Your task to perform on an android device: open app "Adobe Acrobat Reader: Edit PDF" (install if not already installed) Image 0: 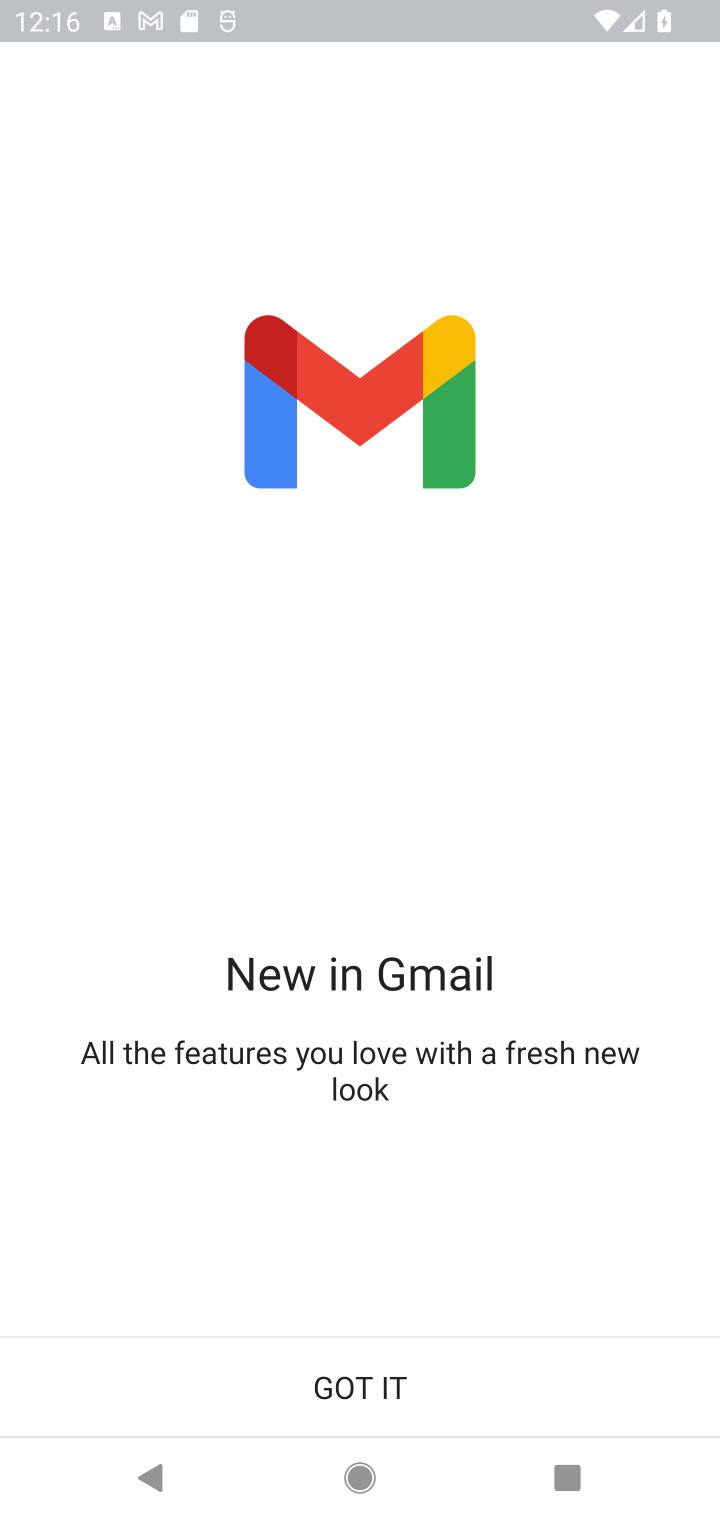
Step 0: press home button
Your task to perform on an android device: open app "Adobe Acrobat Reader: Edit PDF" (install if not already installed) Image 1: 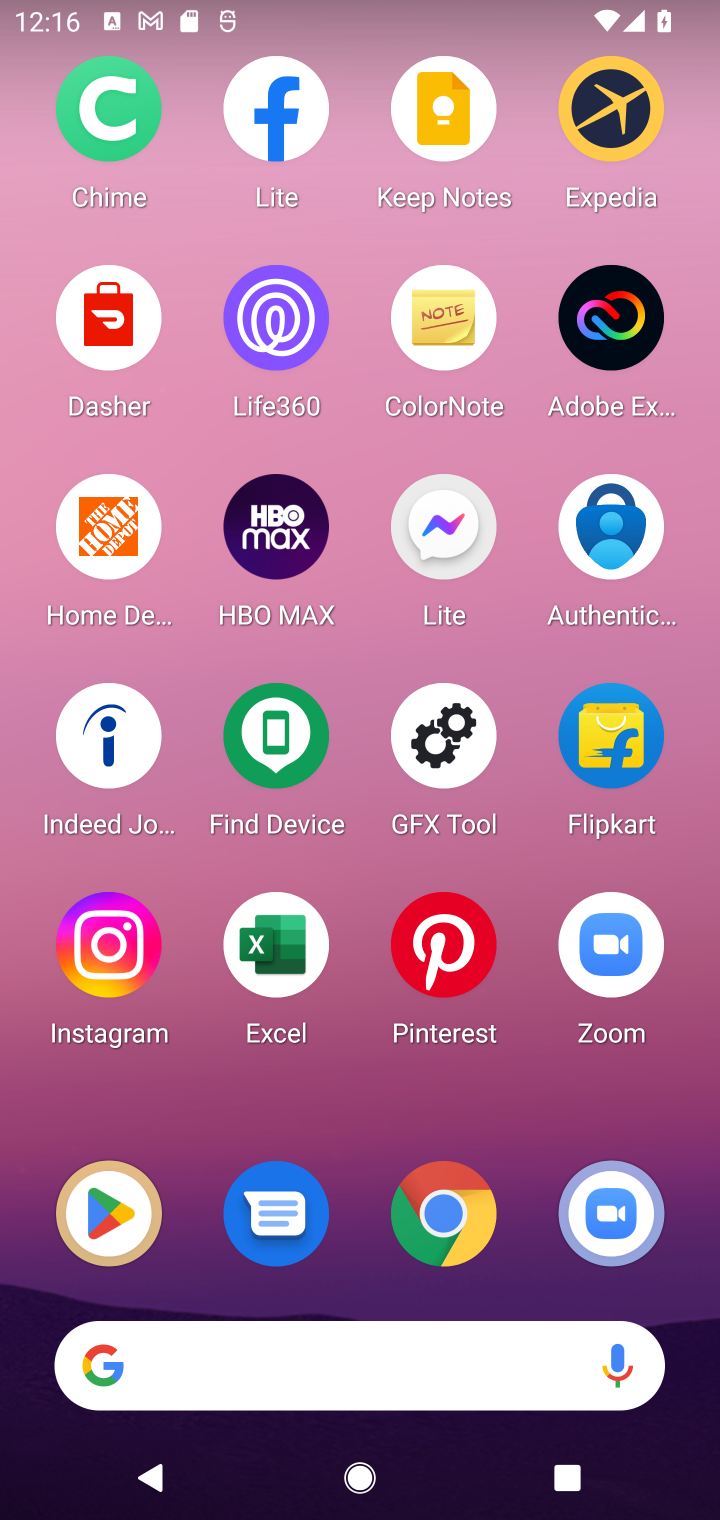
Step 1: click (123, 1205)
Your task to perform on an android device: open app "Adobe Acrobat Reader: Edit PDF" (install if not already installed) Image 2: 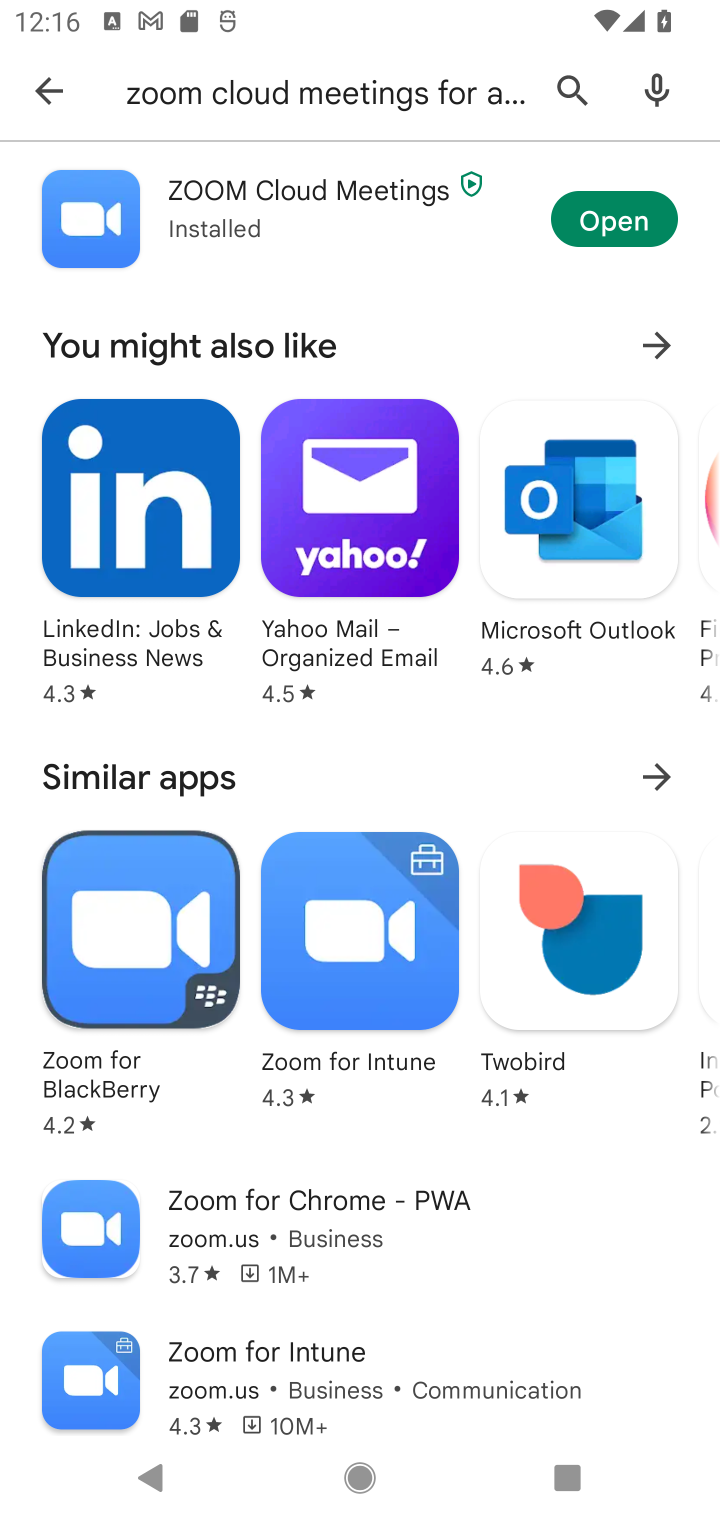
Step 2: click (43, 85)
Your task to perform on an android device: open app "Adobe Acrobat Reader: Edit PDF" (install if not already installed) Image 3: 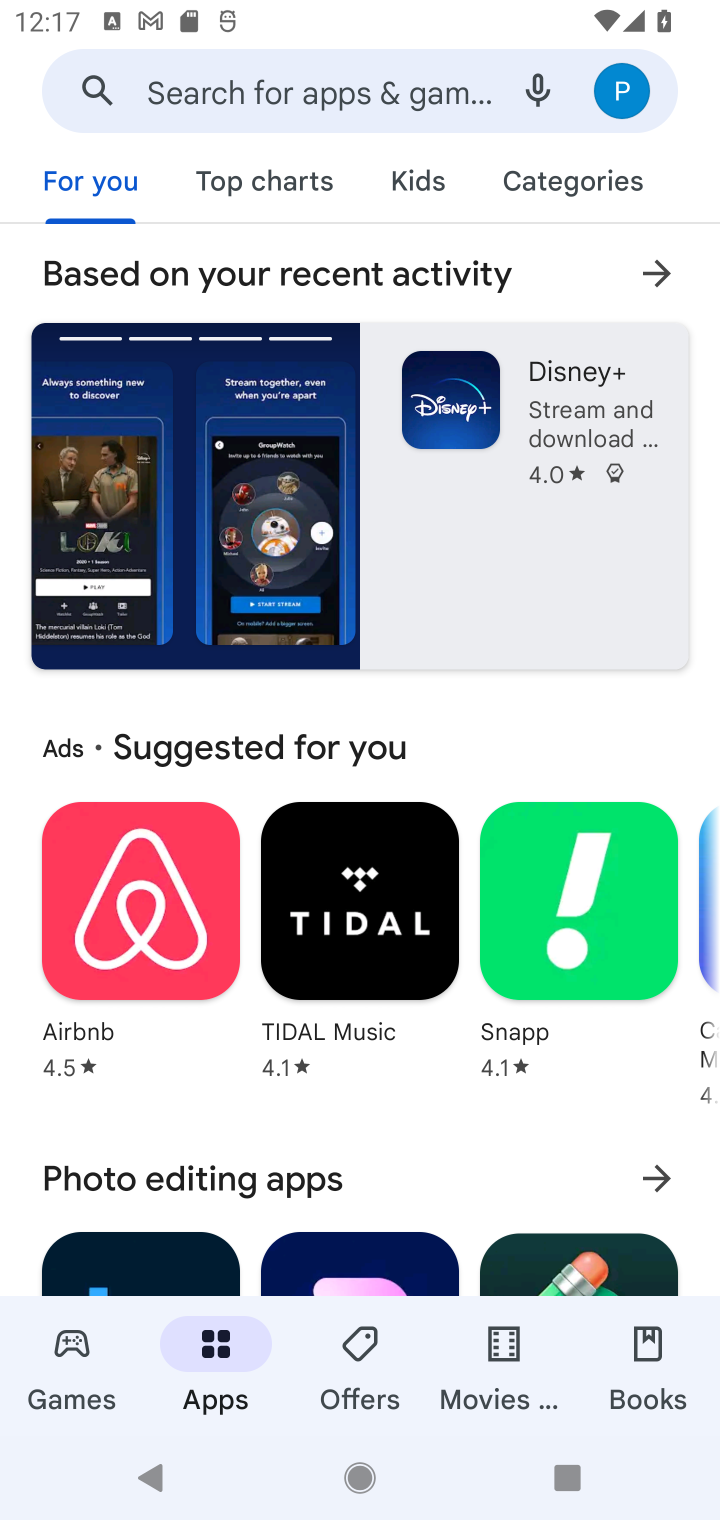
Step 3: click (279, 72)
Your task to perform on an android device: open app "Adobe Acrobat Reader: Edit PDF" (install if not already installed) Image 4: 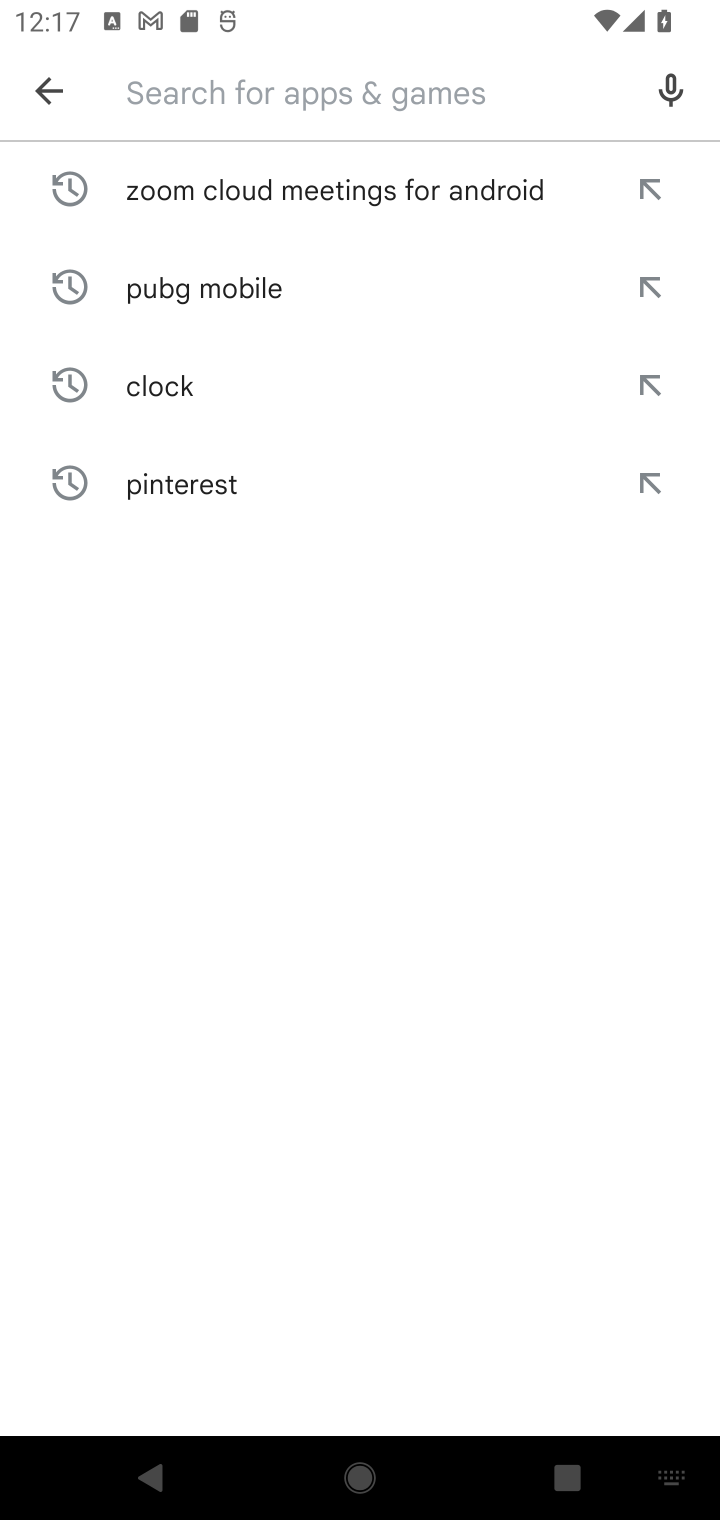
Step 4: type "Adobe Acrobat Reader: Edit PDF"
Your task to perform on an android device: open app "Adobe Acrobat Reader: Edit PDF" (install if not already installed) Image 5: 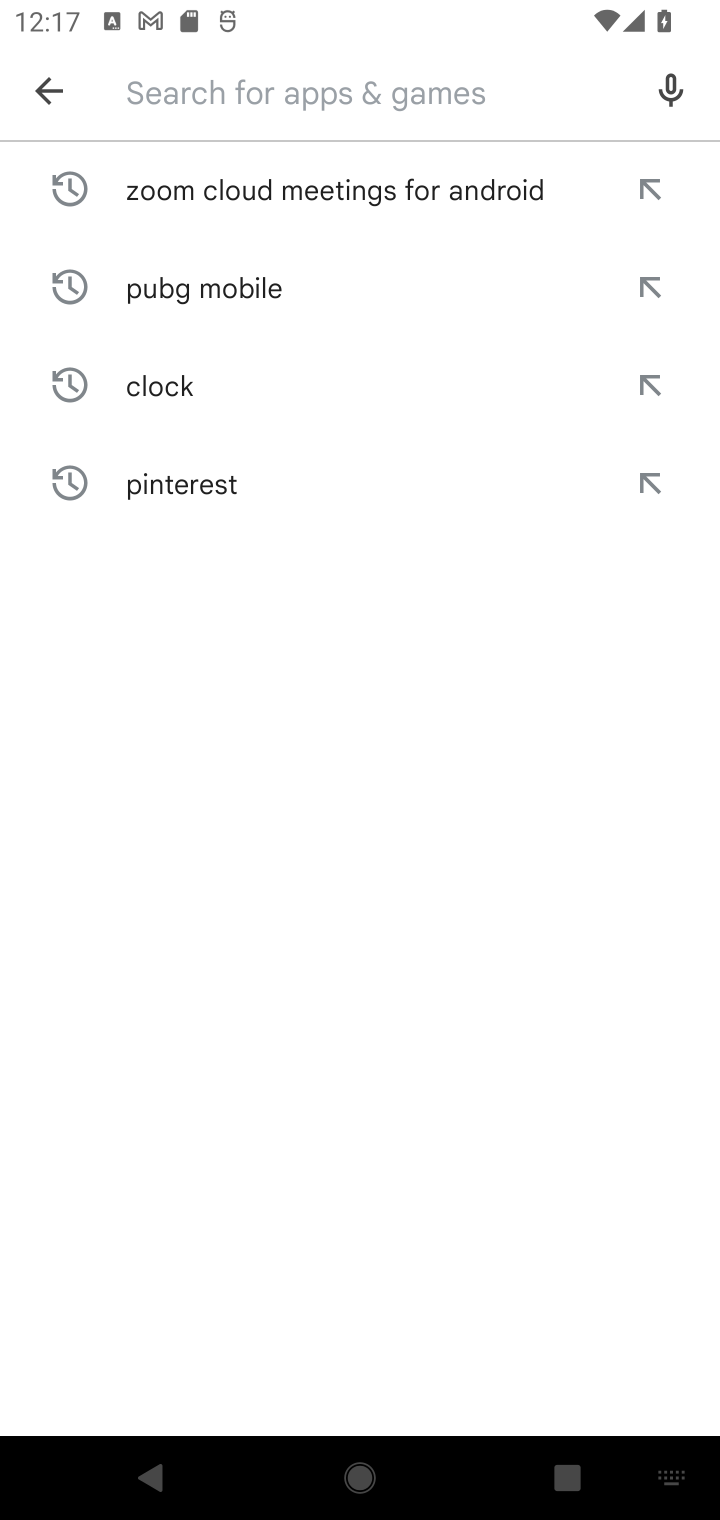
Step 5: click (373, 183)
Your task to perform on an android device: open app "Adobe Acrobat Reader: Edit PDF" (install if not already installed) Image 6: 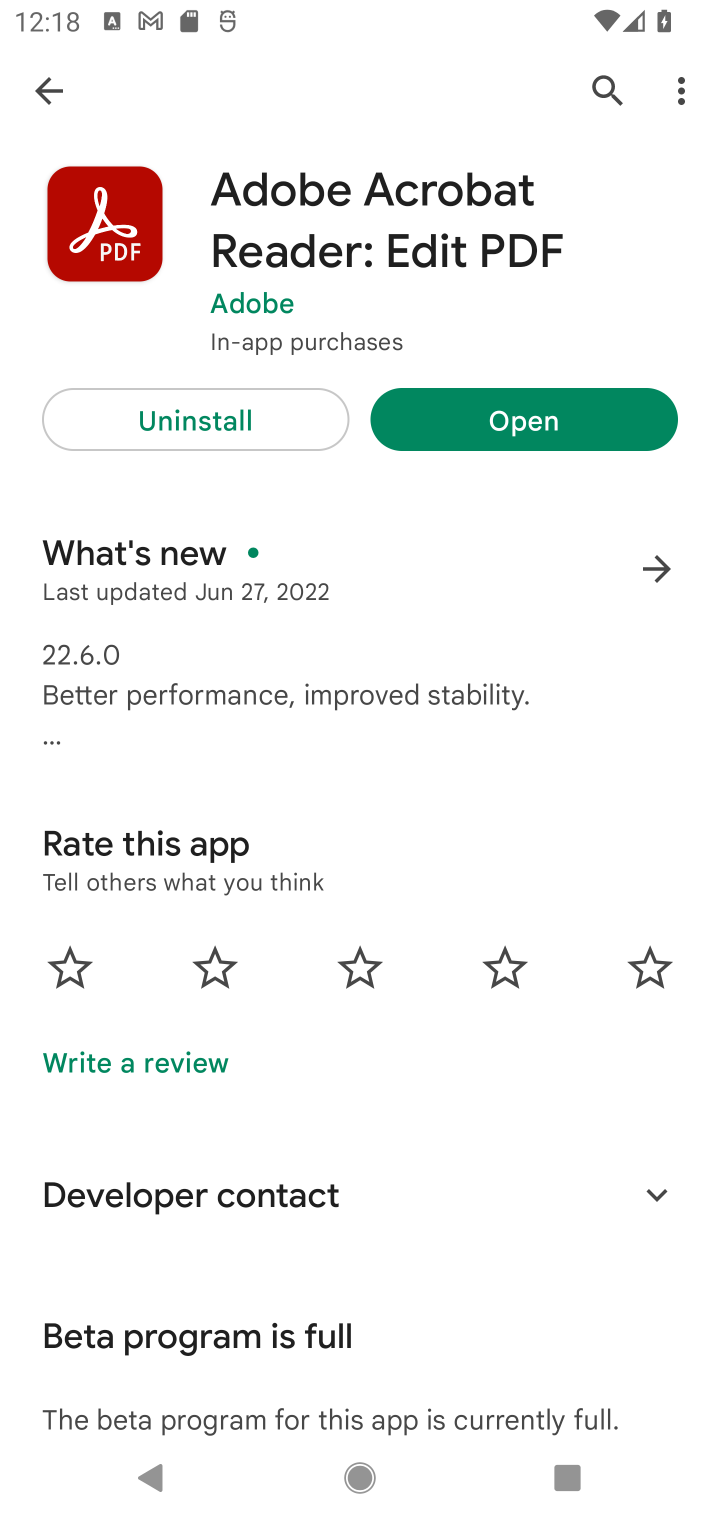
Step 6: click (510, 409)
Your task to perform on an android device: open app "Adobe Acrobat Reader: Edit PDF" (install if not already installed) Image 7: 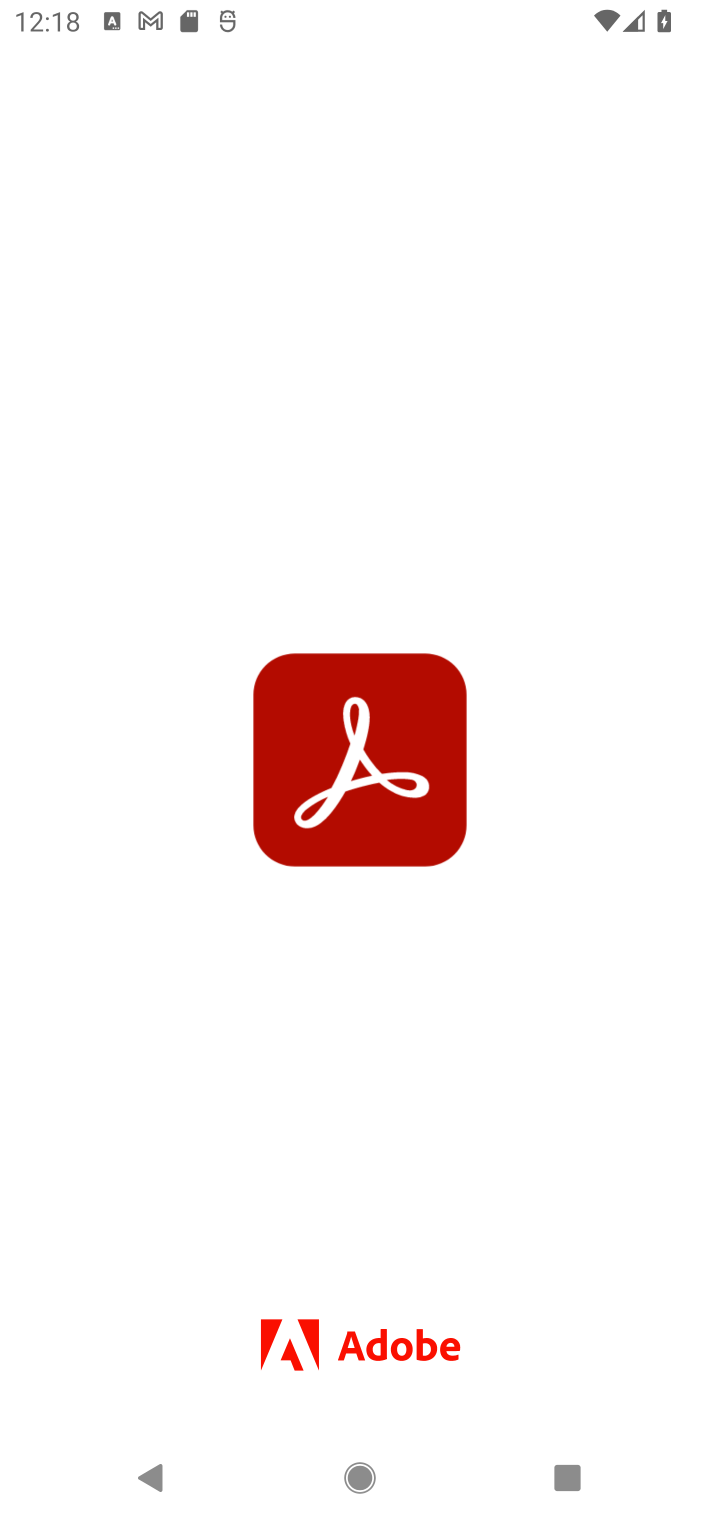
Step 7: task complete